Your task to perform on an android device: Open Reddit.com Image 0: 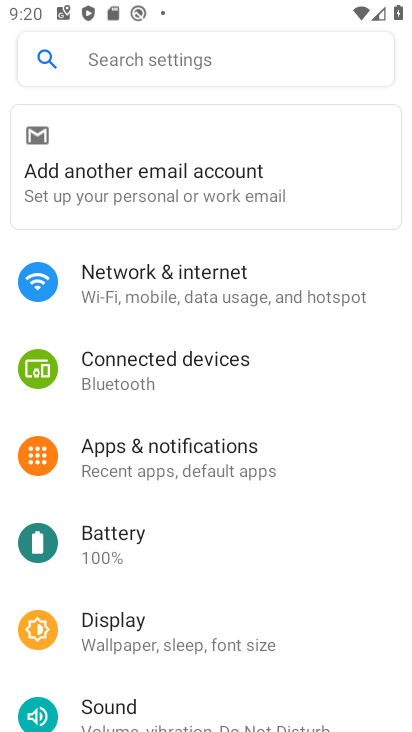
Step 0: press home button
Your task to perform on an android device: Open Reddit.com Image 1: 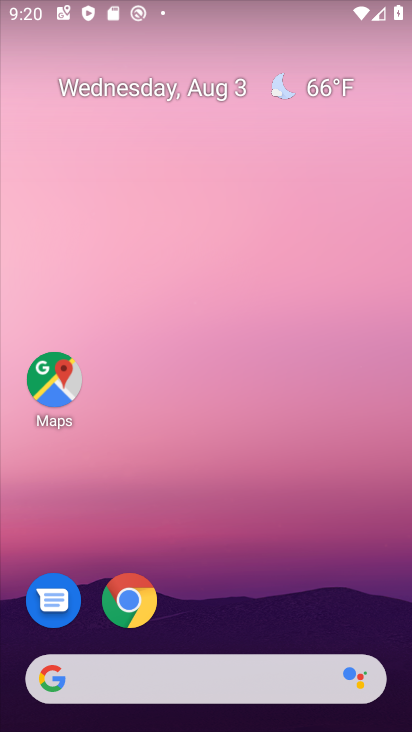
Step 1: drag from (211, 620) to (203, 55)
Your task to perform on an android device: Open Reddit.com Image 2: 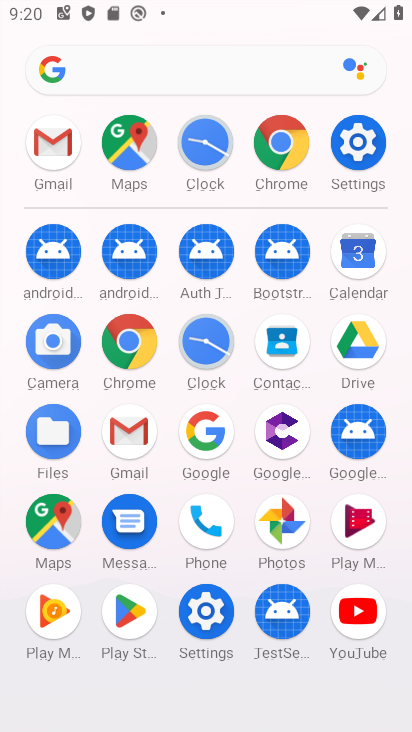
Step 2: click (364, 183)
Your task to perform on an android device: Open Reddit.com Image 3: 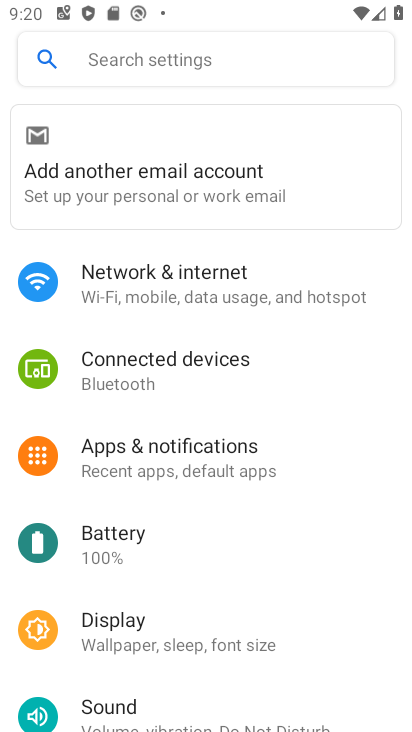
Step 3: press back button
Your task to perform on an android device: Open Reddit.com Image 4: 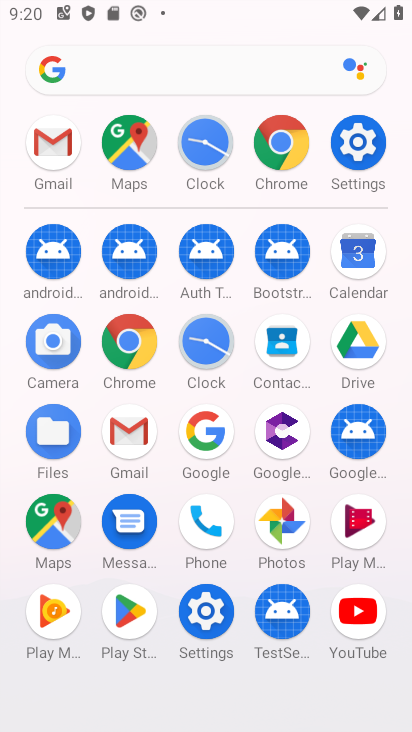
Step 4: click (287, 155)
Your task to perform on an android device: Open Reddit.com Image 5: 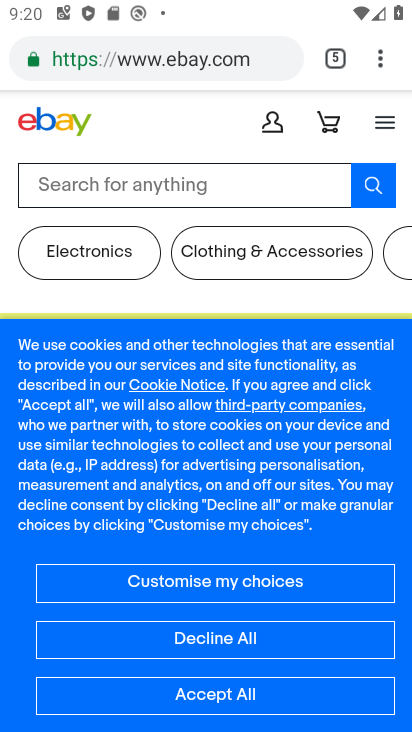
Step 5: click (199, 66)
Your task to perform on an android device: Open Reddit.com Image 6: 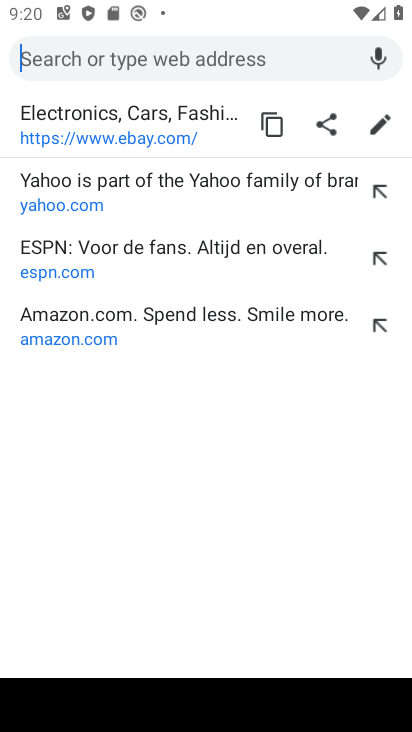
Step 6: type "reddit.com"
Your task to perform on an android device: Open Reddit.com Image 7: 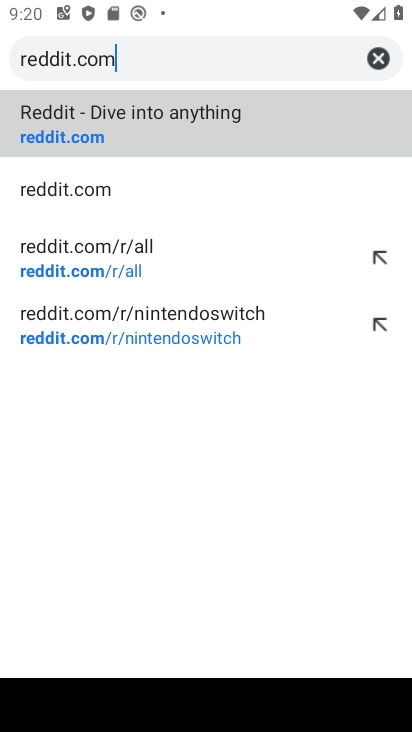
Step 7: click (125, 124)
Your task to perform on an android device: Open Reddit.com Image 8: 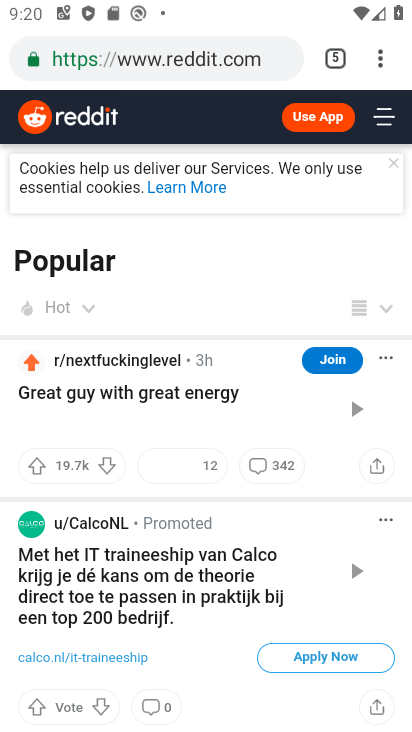
Step 8: task complete